Your task to perform on an android device: What's the weather going to be this weekend? Image 0: 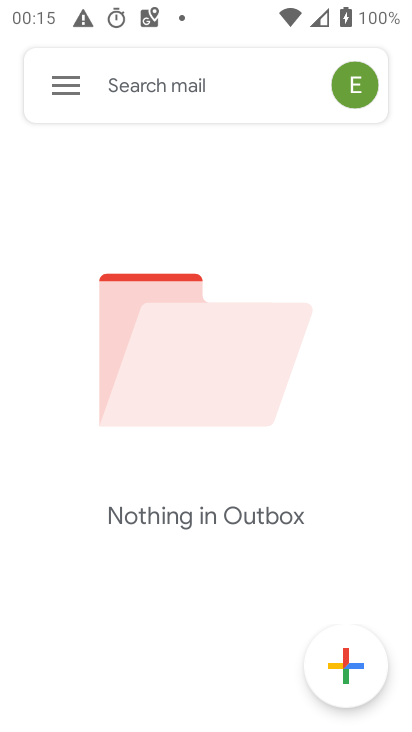
Step 0: press back button
Your task to perform on an android device: What's the weather going to be this weekend? Image 1: 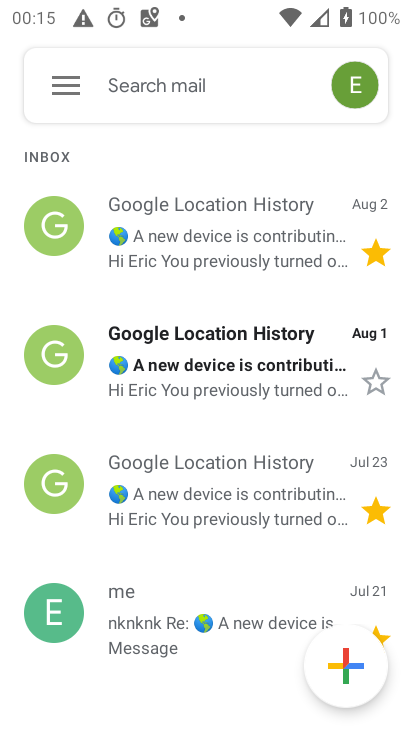
Step 1: press back button
Your task to perform on an android device: What's the weather going to be this weekend? Image 2: 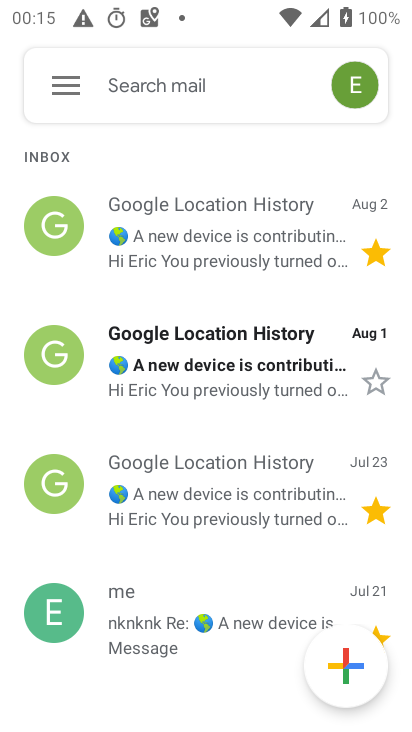
Step 2: press back button
Your task to perform on an android device: What's the weather going to be this weekend? Image 3: 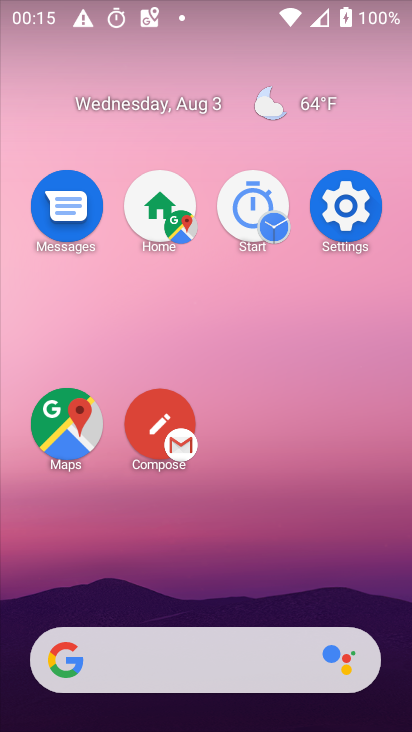
Step 3: drag from (346, 575) to (303, 124)
Your task to perform on an android device: What's the weather going to be this weekend? Image 4: 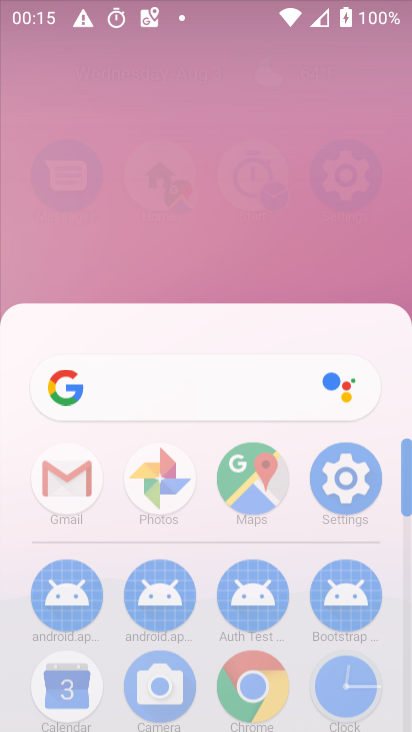
Step 4: drag from (358, 545) to (348, 220)
Your task to perform on an android device: What's the weather going to be this weekend? Image 5: 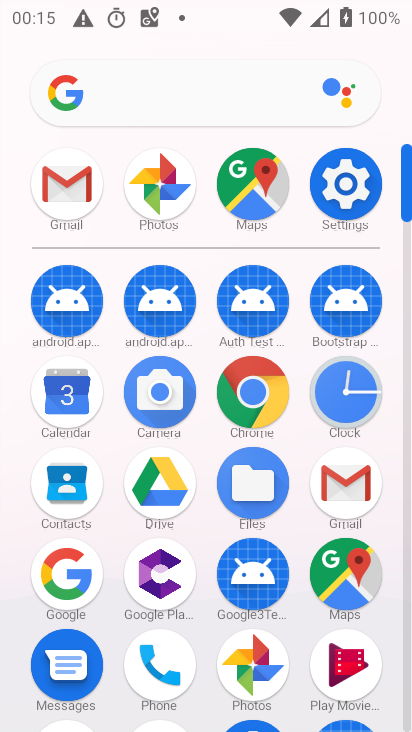
Step 5: click (262, 388)
Your task to perform on an android device: What's the weather going to be this weekend? Image 6: 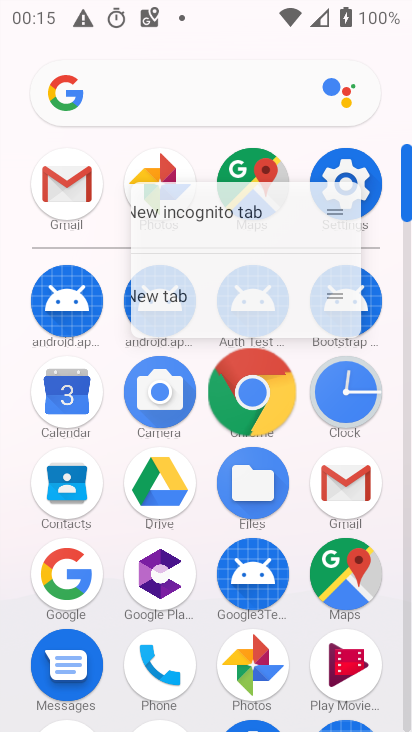
Step 6: click (257, 382)
Your task to perform on an android device: What's the weather going to be this weekend? Image 7: 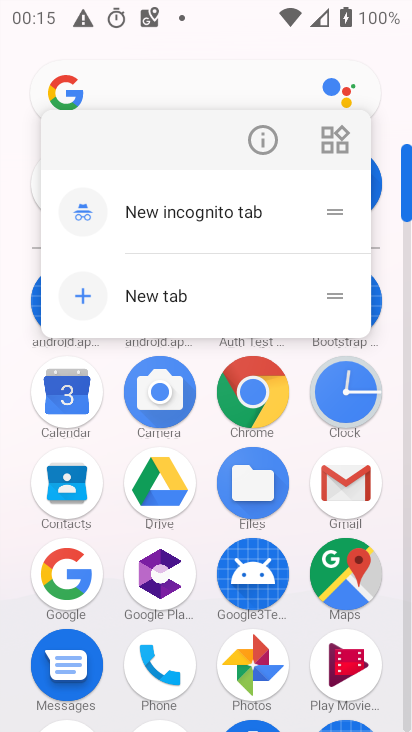
Step 7: click (259, 381)
Your task to perform on an android device: What's the weather going to be this weekend? Image 8: 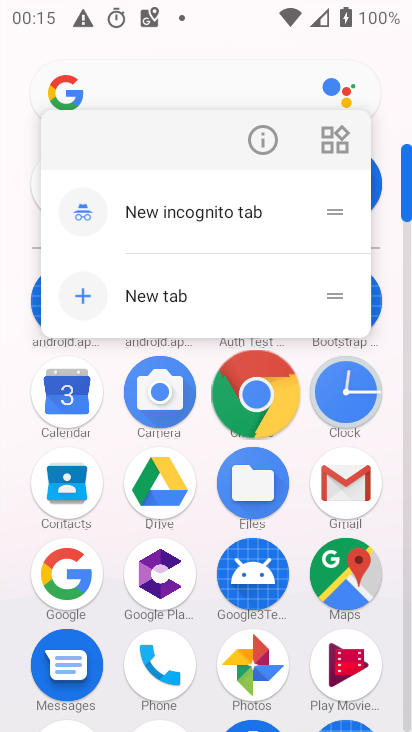
Step 8: click (263, 383)
Your task to perform on an android device: What's the weather going to be this weekend? Image 9: 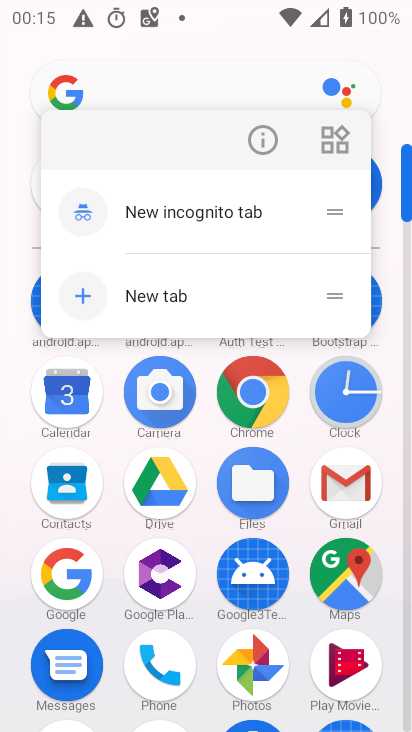
Step 9: click (263, 375)
Your task to perform on an android device: What's the weather going to be this weekend? Image 10: 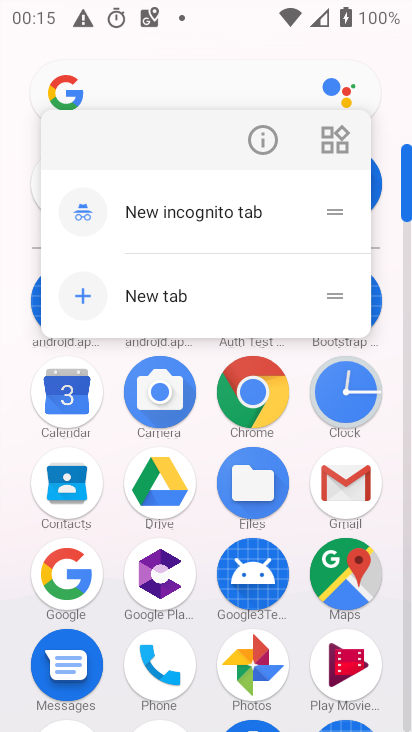
Step 10: click (167, 292)
Your task to perform on an android device: What's the weather going to be this weekend? Image 11: 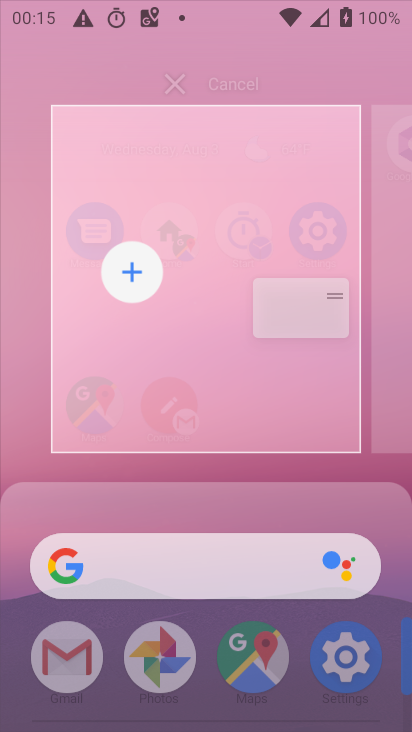
Step 11: click (168, 292)
Your task to perform on an android device: What's the weather going to be this weekend? Image 12: 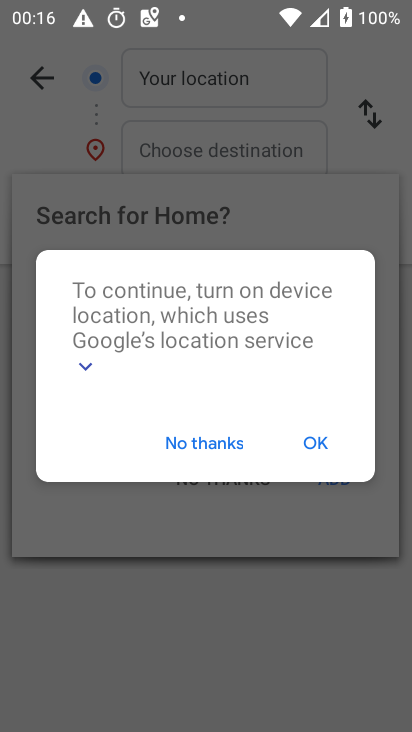
Step 12: click (314, 436)
Your task to perform on an android device: What's the weather going to be this weekend? Image 13: 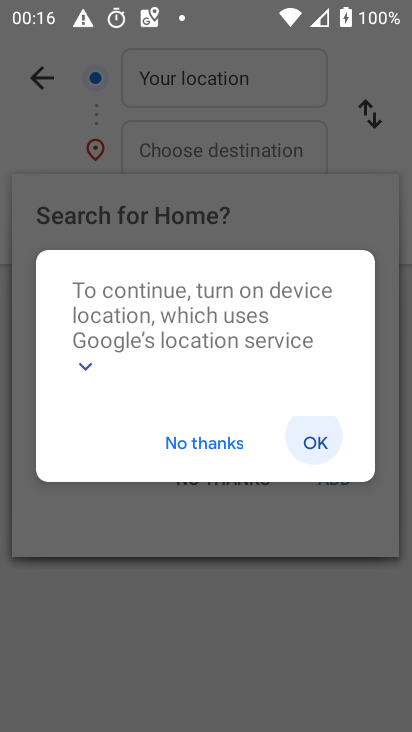
Step 13: click (313, 434)
Your task to perform on an android device: What's the weather going to be this weekend? Image 14: 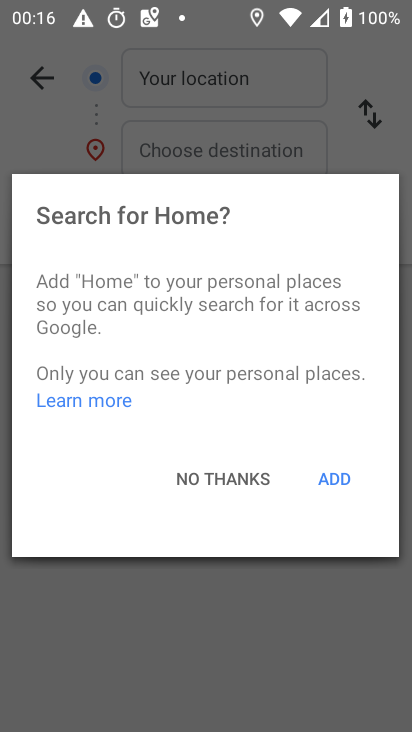
Step 14: click (223, 468)
Your task to perform on an android device: What's the weather going to be this weekend? Image 15: 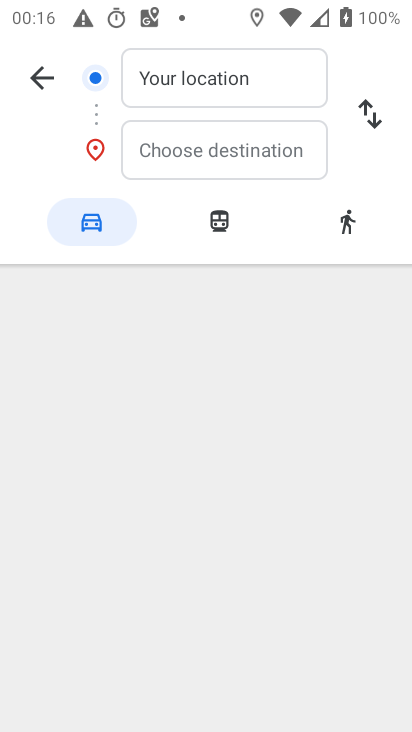
Step 15: task complete